Your task to perform on an android device: Search for pizza restaurants on Maps Image 0: 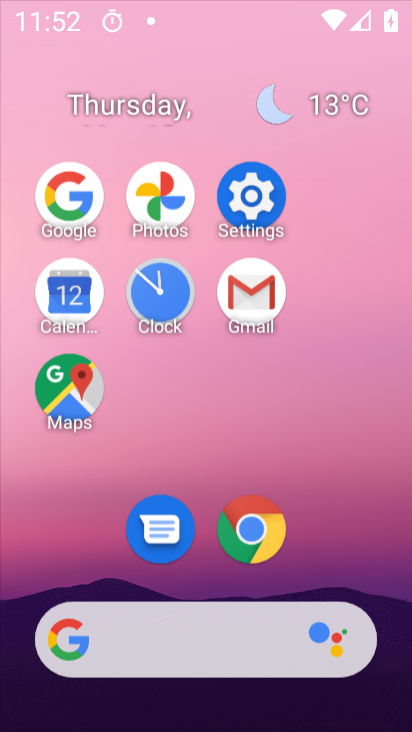
Step 0: click (250, 210)
Your task to perform on an android device: Search for pizza restaurants on Maps Image 1: 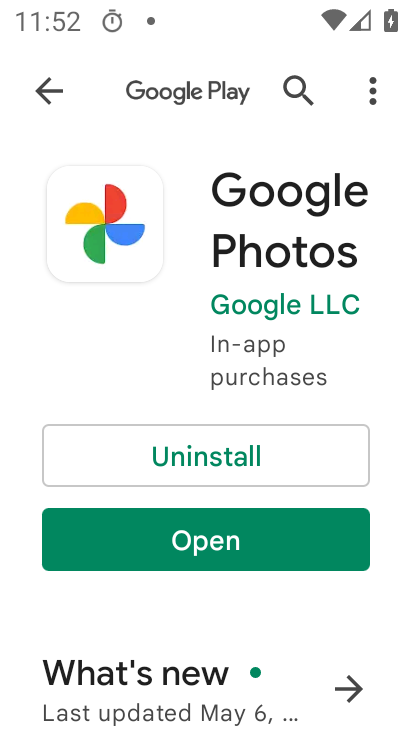
Step 1: click (56, 87)
Your task to perform on an android device: Search for pizza restaurants on Maps Image 2: 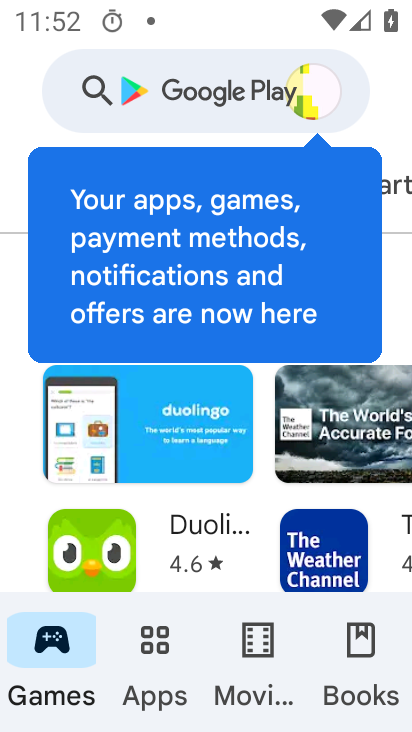
Step 2: press home button
Your task to perform on an android device: Search for pizza restaurants on Maps Image 3: 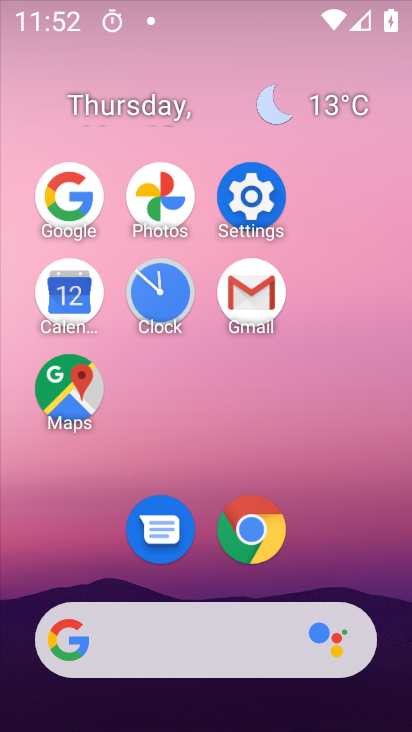
Step 3: click (254, 180)
Your task to perform on an android device: Search for pizza restaurants on Maps Image 4: 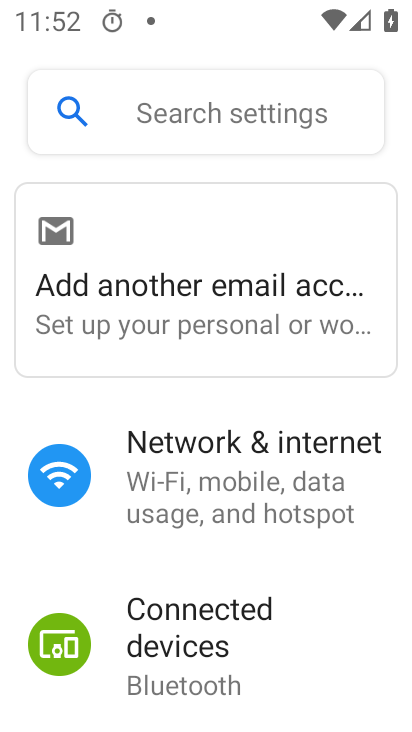
Step 4: press home button
Your task to perform on an android device: Search for pizza restaurants on Maps Image 5: 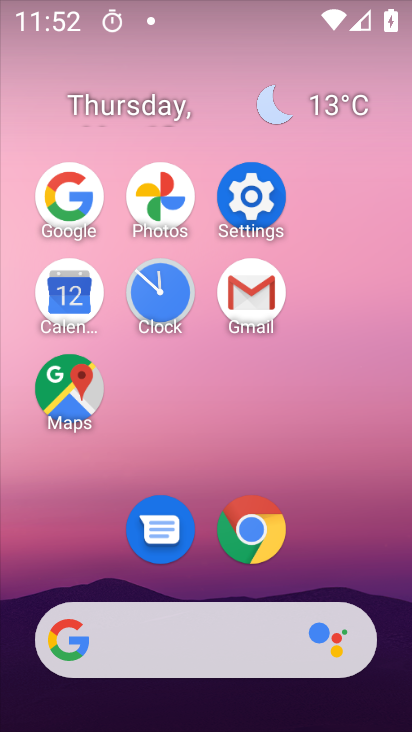
Step 5: click (75, 385)
Your task to perform on an android device: Search for pizza restaurants on Maps Image 6: 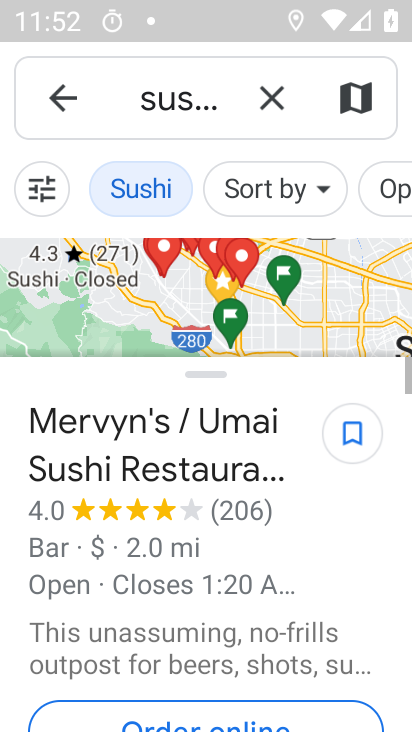
Step 6: click (285, 107)
Your task to perform on an android device: Search for pizza restaurants on Maps Image 7: 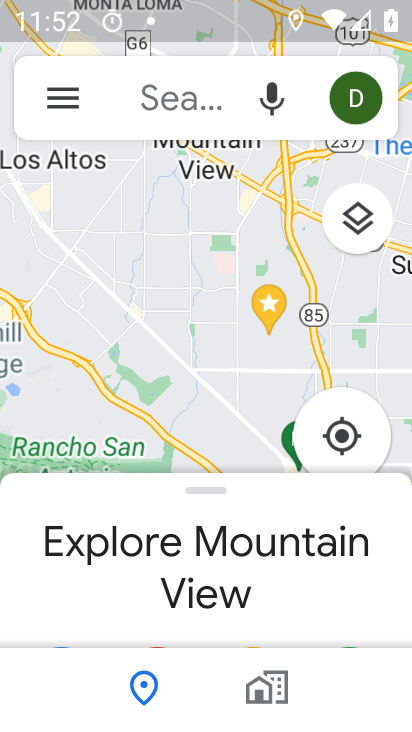
Step 7: click (149, 122)
Your task to perform on an android device: Search for pizza restaurants on Maps Image 8: 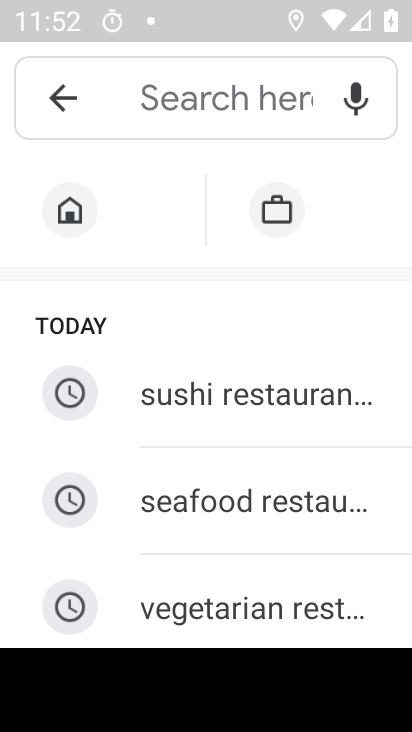
Step 8: drag from (233, 579) to (283, 213)
Your task to perform on an android device: Search for pizza restaurants on Maps Image 9: 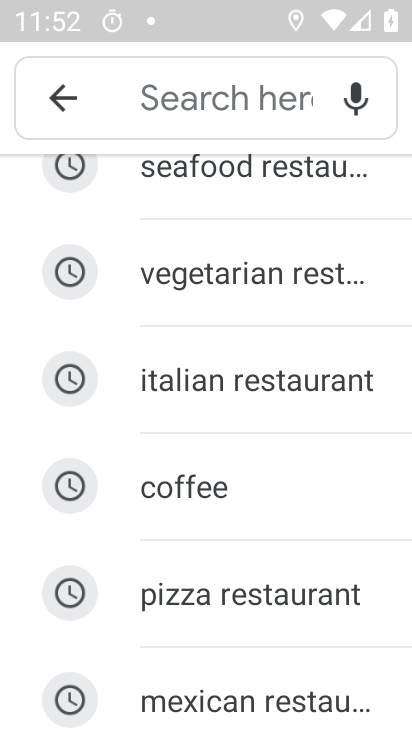
Step 9: click (228, 613)
Your task to perform on an android device: Search for pizza restaurants on Maps Image 10: 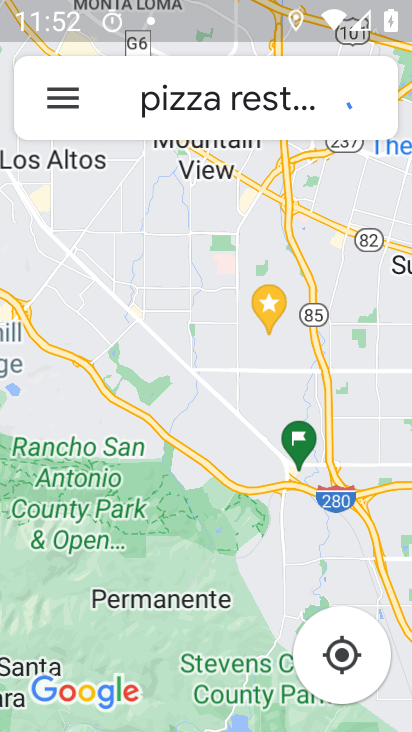
Step 10: task complete